Your task to perform on an android device: clear all cookies in the chrome app Image 0: 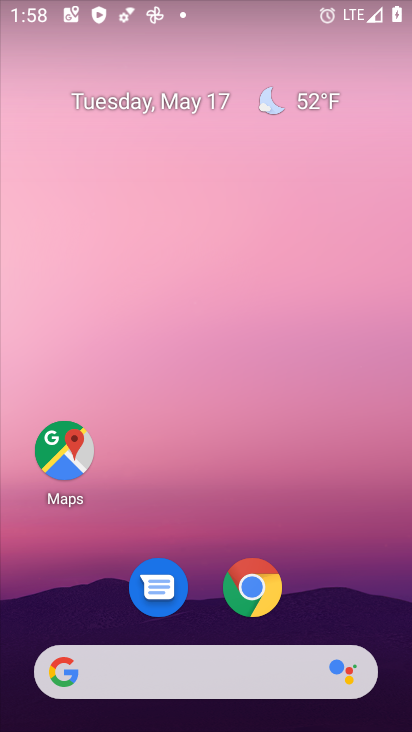
Step 0: click (282, 600)
Your task to perform on an android device: clear all cookies in the chrome app Image 1: 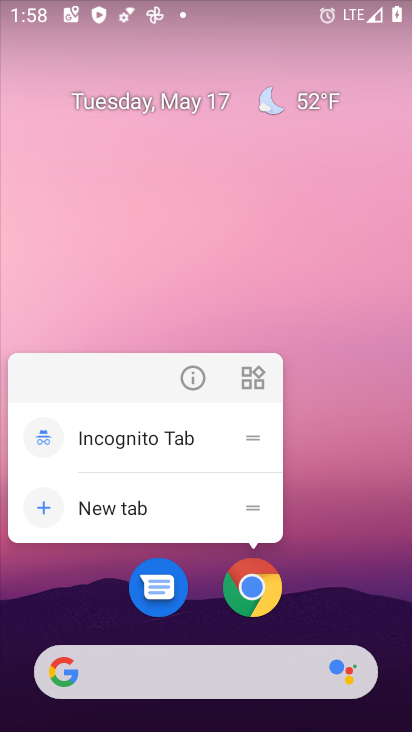
Step 1: click (266, 598)
Your task to perform on an android device: clear all cookies in the chrome app Image 2: 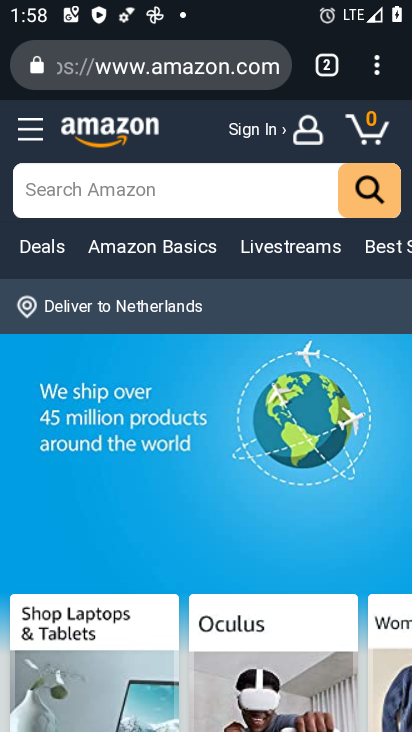
Step 2: click (370, 64)
Your task to perform on an android device: clear all cookies in the chrome app Image 3: 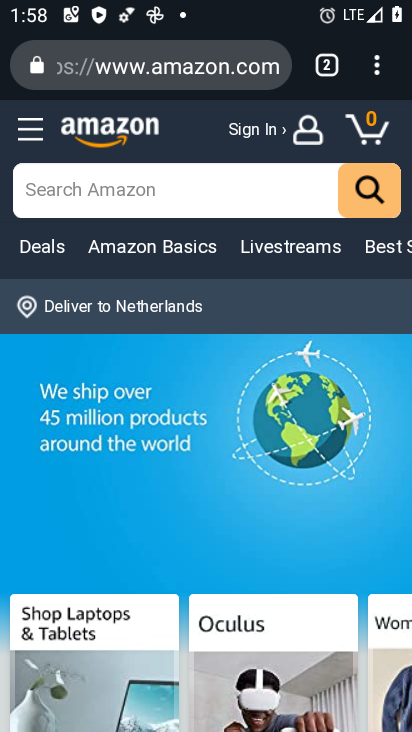
Step 3: click (379, 73)
Your task to perform on an android device: clear all cookies in the chrome app Image 4: 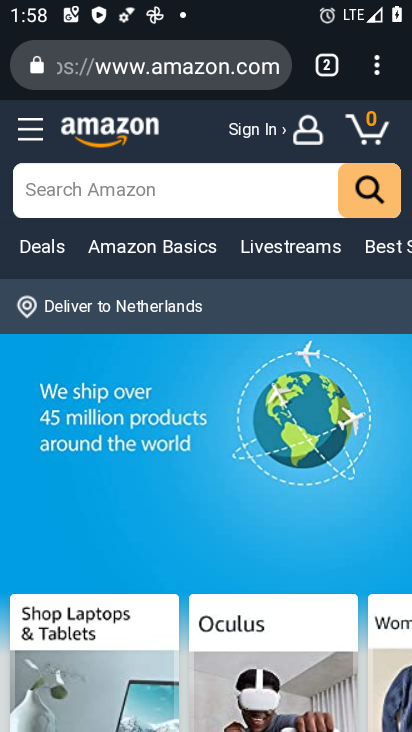
Step 4: click (373, 74)
Your task to perform on an android device: clear all cookies in the chrome app Image 5: 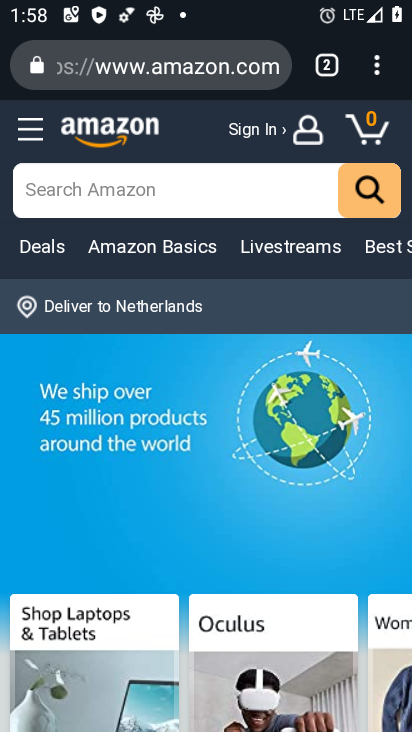
Step 5: click (367, 52)
Your task to perform on an android device: clear all cookies in the chrome app Image 6: 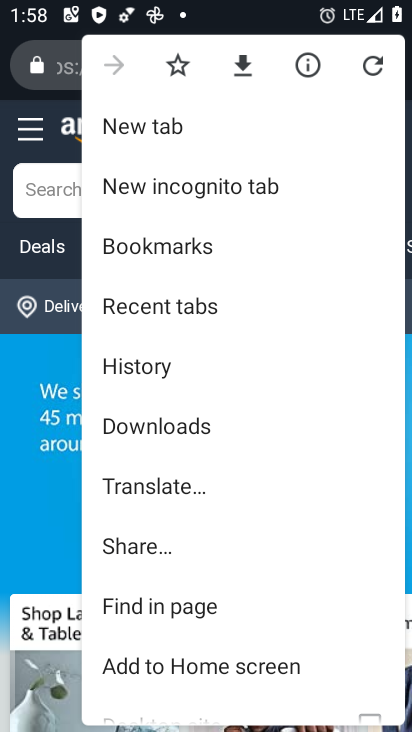
Step 6: drag from (241, 603) to (192, 398)
Your task to perform on an android device: clear all cookies in the chrome app Image 7: 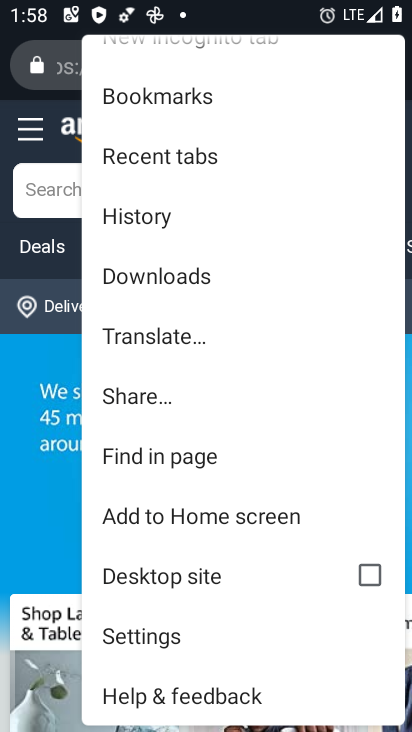
Step 7: click (156, 648)
Your task to perform on an android device: clear all cookies in the chrome app Image 8: 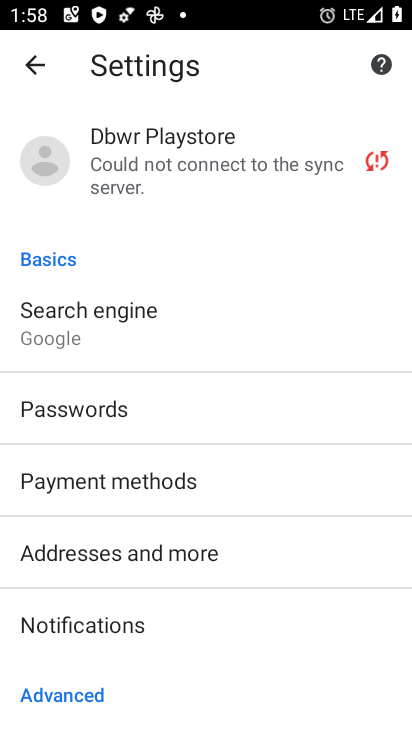
Step 8: drag from (130, 603) to (136, 405)
Your task to perform on an android device: clear all cookies in the chrome app Image 9: 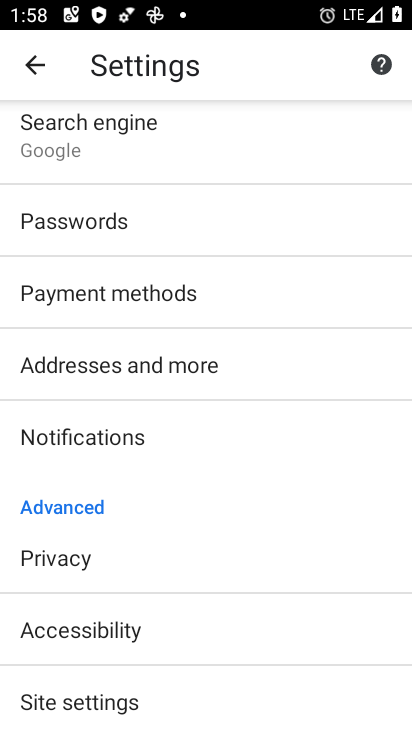
Step 9: click (76, 692)
Your task to perform on an android device: clear all cookies in the chrome app Image 10: 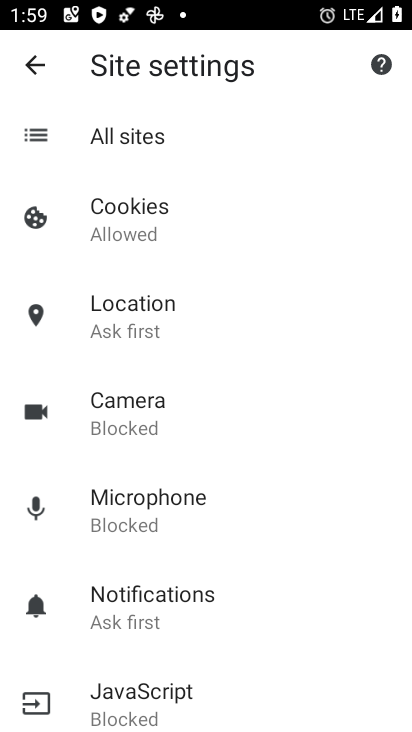
Step 10: click (44, 69)
Your task to perform on an android device: clear all cookies in the chrome app Image 11: 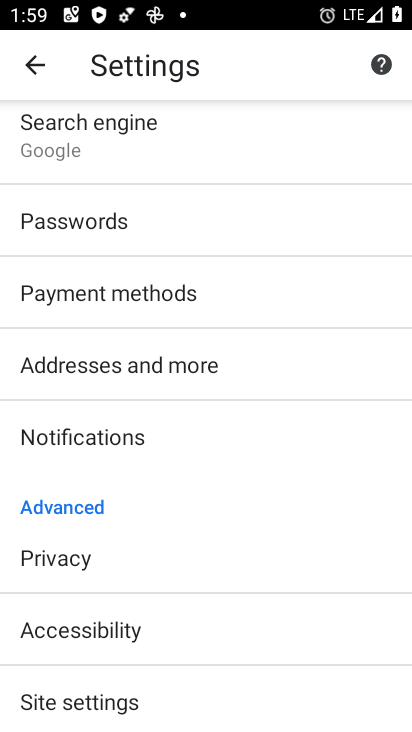
Step 11: click (44, 69)
Your task to perform on an android device: clear all cookies in the chrome app Image 12: 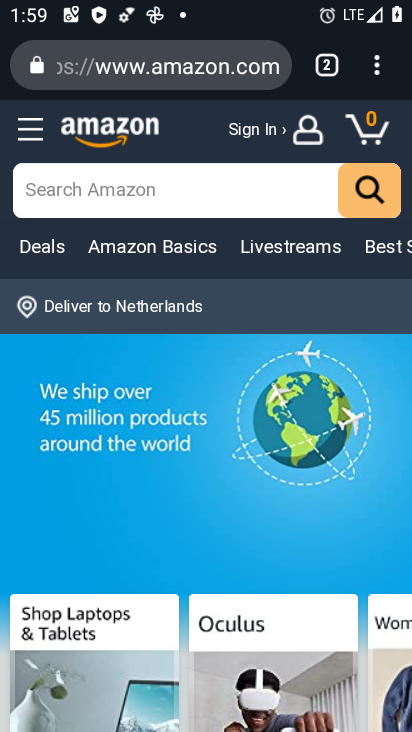
Step 12: click (376, 60)
Your task to perform on an android device: clear all cookies in the chrome app Image 13: 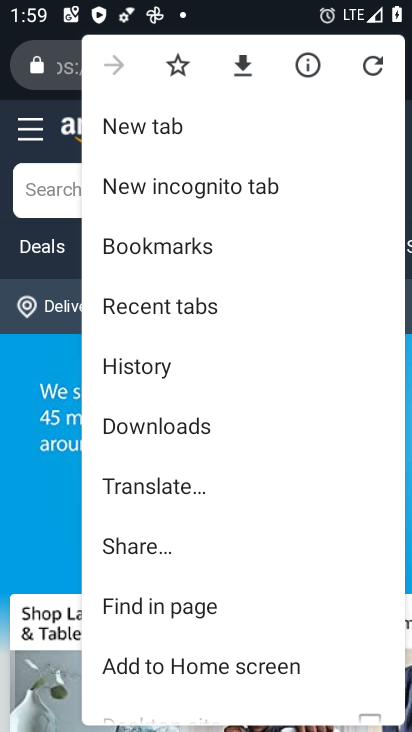
Step 13: drag from (281, 526) to (279, 363)
Your task to perform on an android device: clear all cookies in the chrome app Image 14: 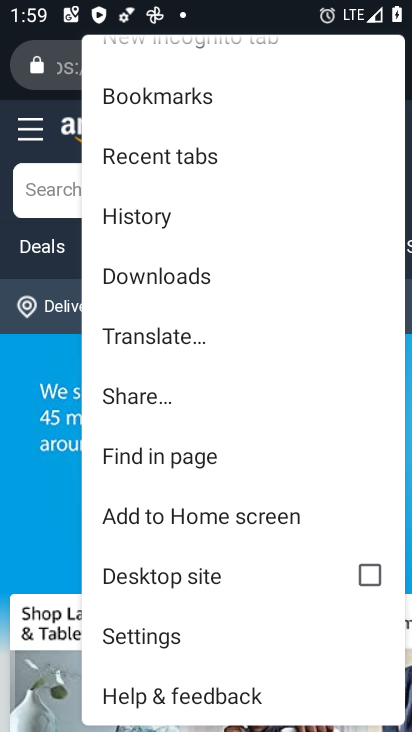
Step 14: click (221, 220)
Your task to perform on an android device: clear all cookies in the chrome app Image 15: 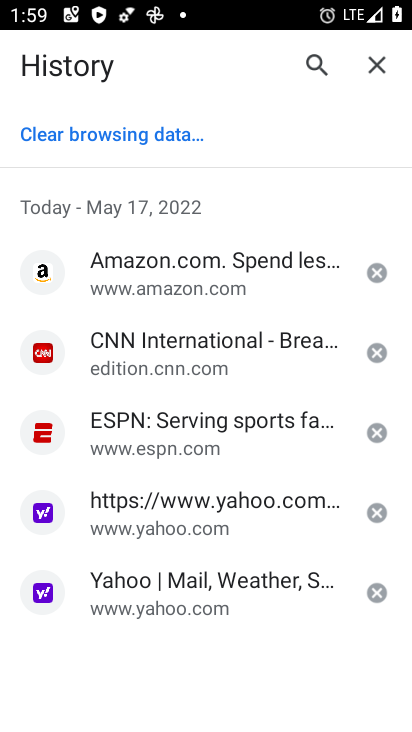
Step 15: click (61, 150)
Your task to perform on an android device: clear all cookies in the chrome app Image 16: 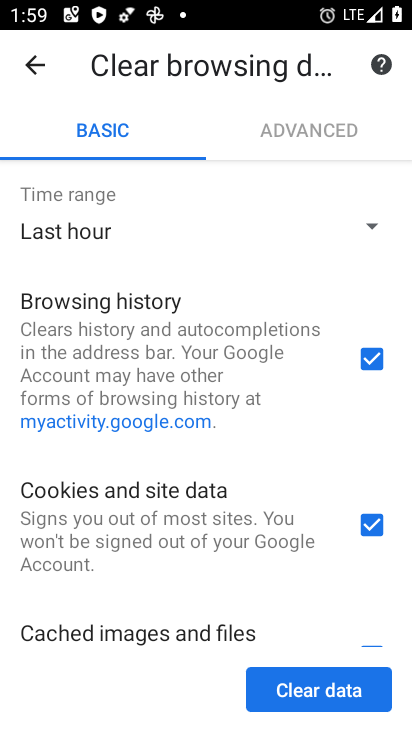
Step 16: click (379, 375)
Your task to perform on an android device: clear all cookies in the chrome app Image 17: 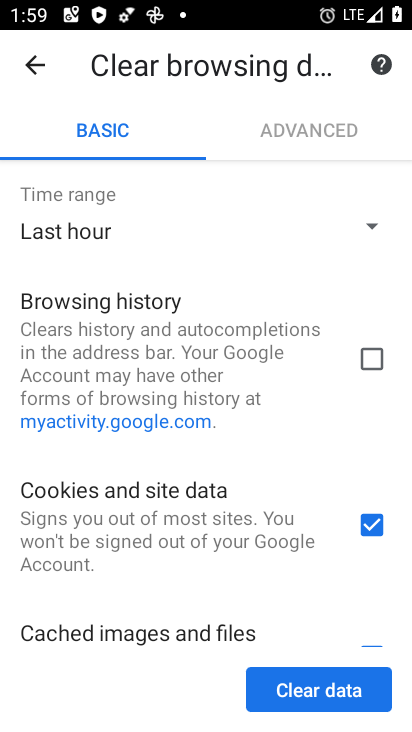
Step 17: click (372, 680)
Your task to perform on an android device: clear all cookies in the chrome app Image 18: 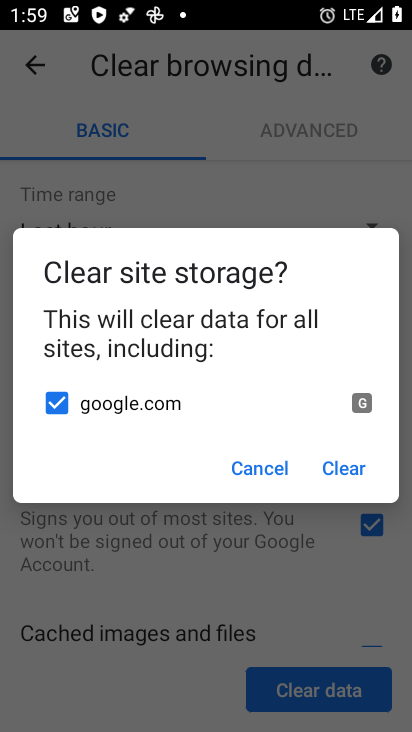
Step 18: click (336, 476)
Your task to perform on an android device: clear all cookies in the chrome app Image 19: 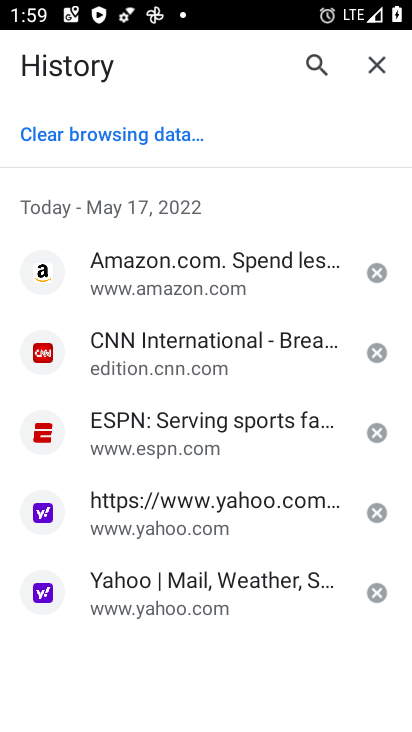
Step 19: task complete